Your task to perform on an android device: open app "Pluto TV - Live TV and Movies" Image 0: 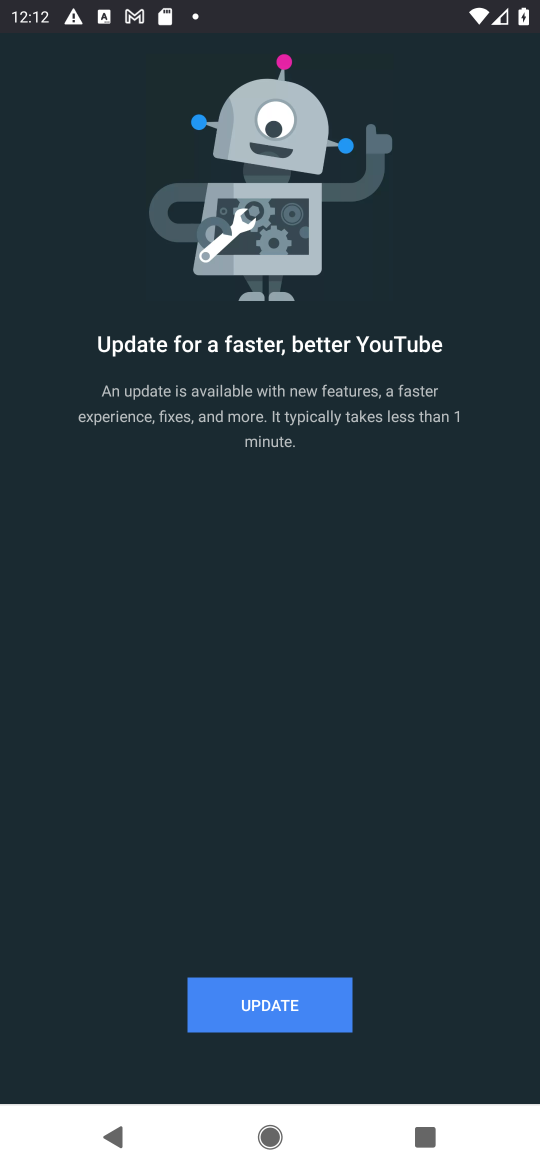
Step 0: press home button
Your task to perform on an android device: open app "Pluto TV - Live TV and Movies" Image 1: 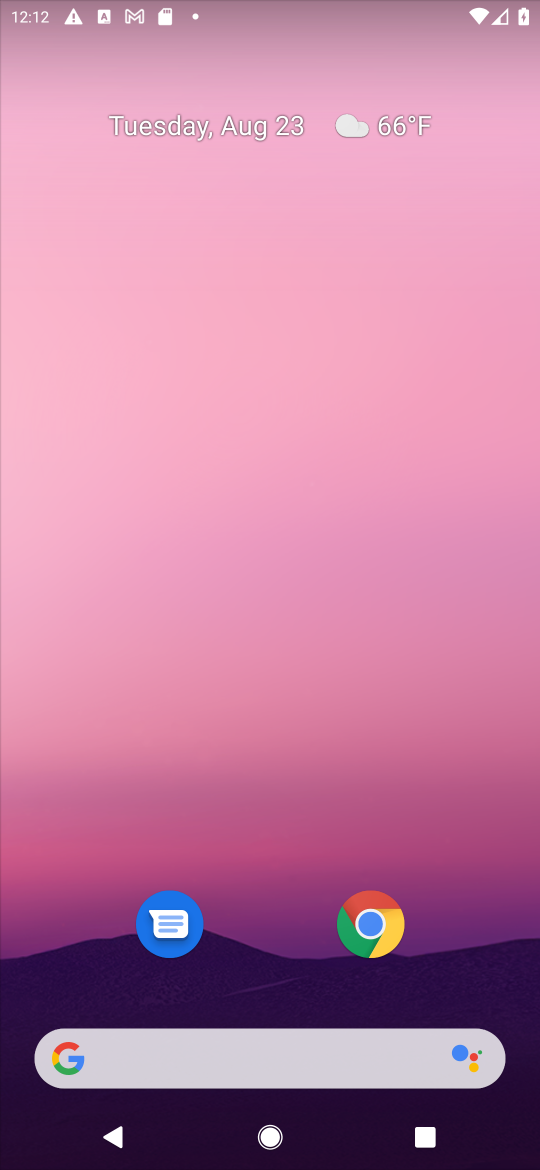
Step 1: drag from (480, 919) to (465, 154)
Your task to perform on an android device: open app "Pluto TV - Live TV and Movies" Image 2: 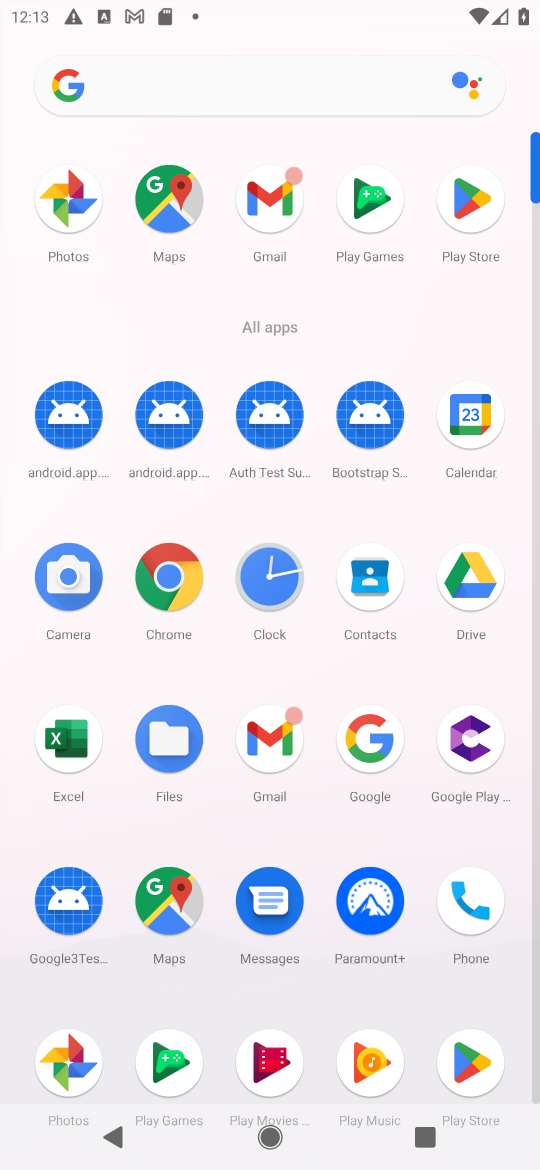
Step 2: click (469, 197)
Your task to perform on an android device: open app "Pluto TV - Live TV and Movies" Image 3: 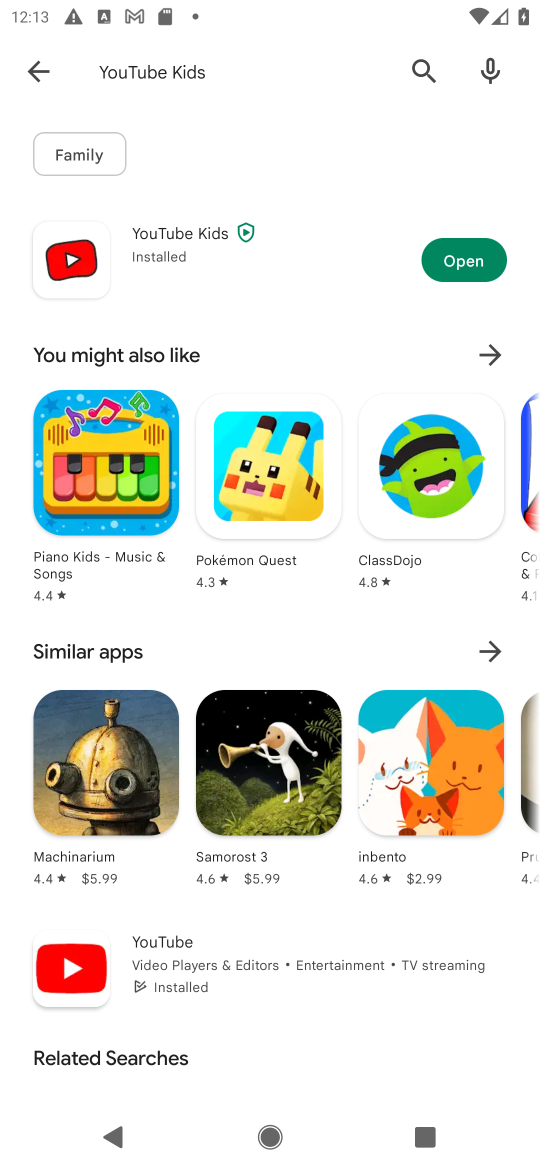
Step 3: press back button
Your task to perform on an android device: open app "Pluto TV - Live TV and Movies" Image 4: 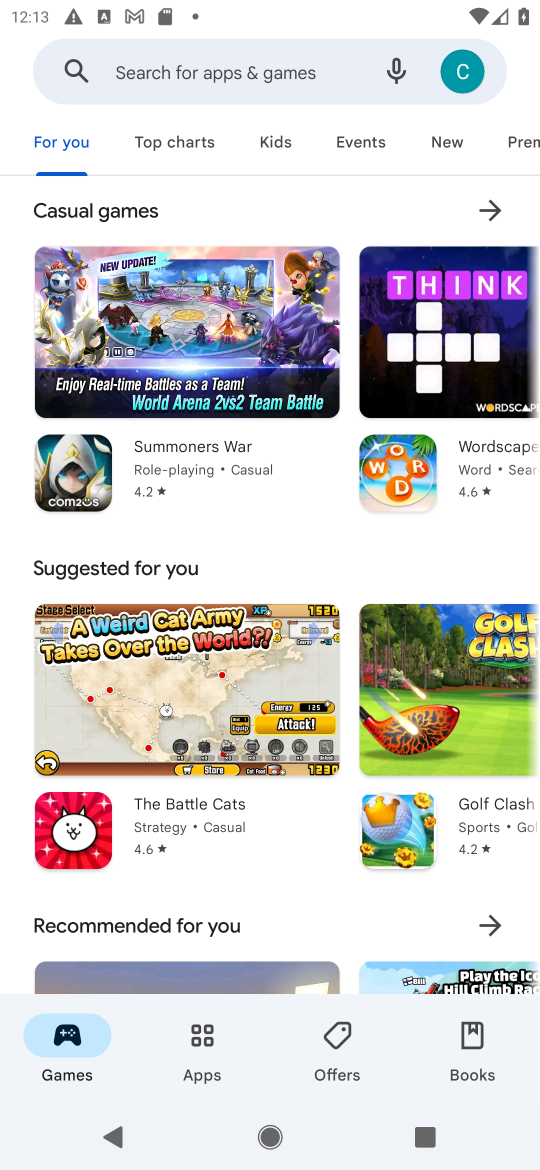
Step 4: click (225, 66)
Your task to perform on an android device: open app "Pluto TV - Live TV and Movies" Image 5: 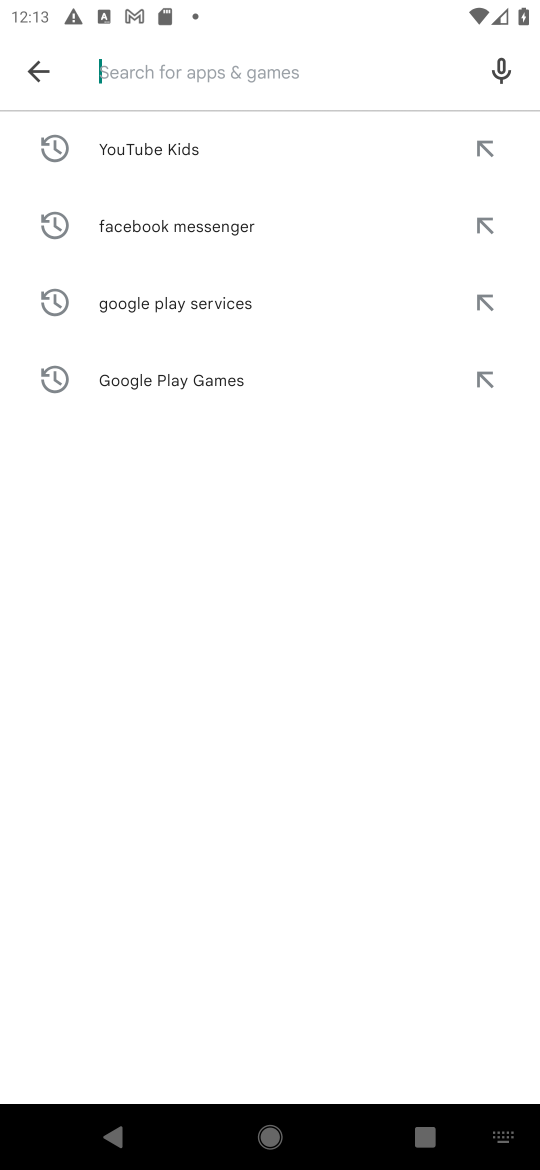
Step 5: type "Pluto TV - Live TV and Movies"
Your task to perform on an android device: open app "Pluto TV - Live TV and Movies" Image 6: 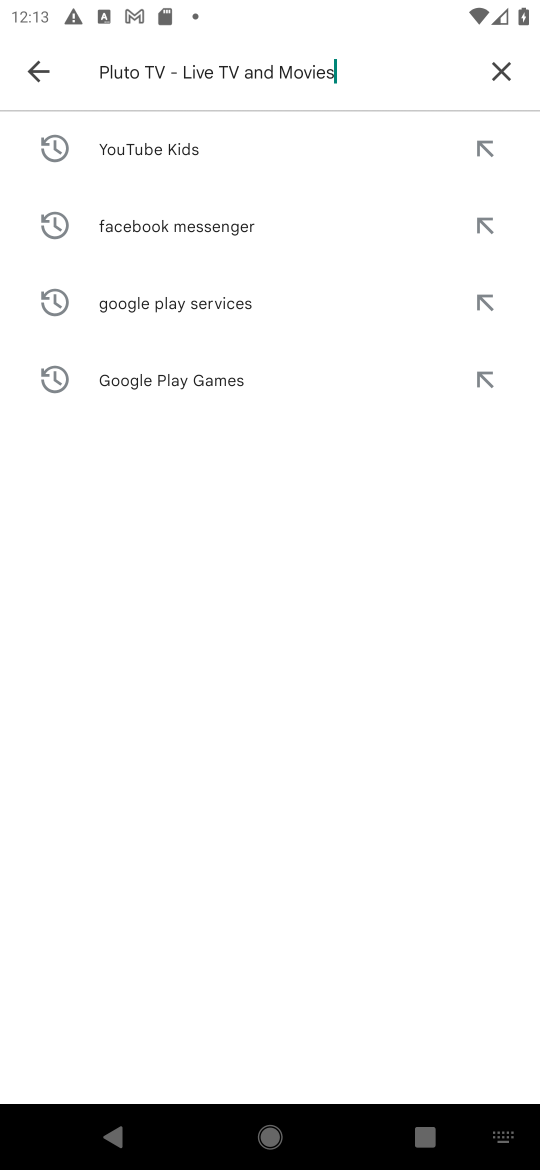
Step 6: press enter
Your task to perform on an android device: open app "Pluto TV - Live TV and Movies" Image 7: 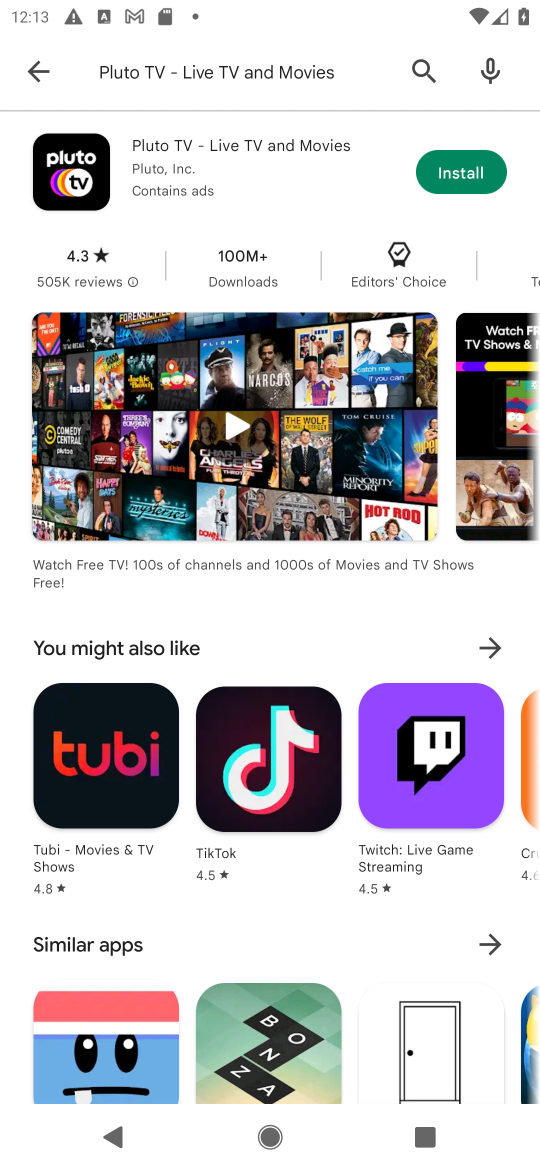
Step 7: task complete